Your task to perform on an android device: When is my next appointment? Image 0: 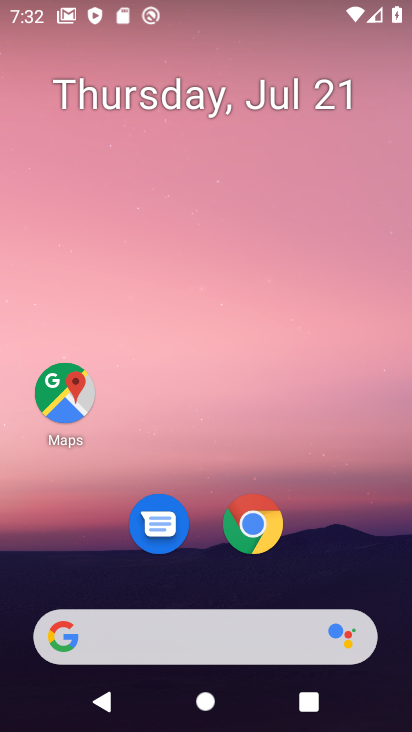
Step 0: press home button
Your task to perform on an android device: When is my next appointment? Image 1: 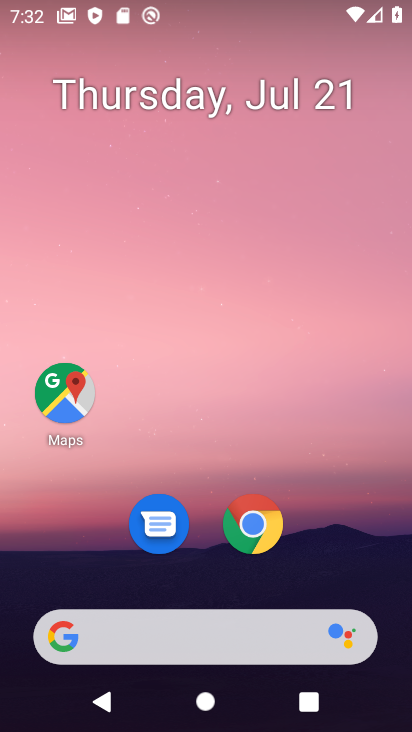
Step 1: drag from (208, 574) to (310, 142)
Your task to perform on an android device: When is my next appointment? Image 2: 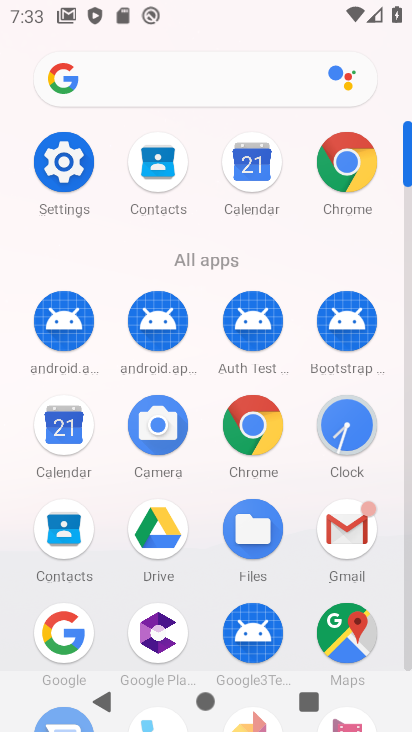
Step 2: click (64, 422)
Your task to perform on an android device: When is my next appointment? Image 3: 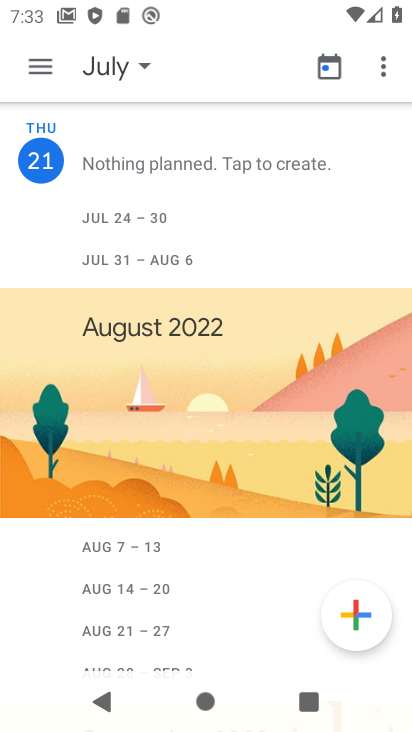
Step 3: task complete